Your task to perform on an android device: Open Wikipedia Image 0: 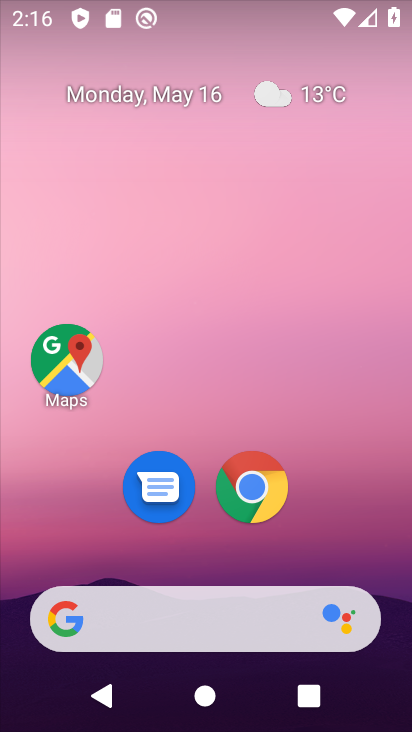
Step 0: click (272, 492)
Your task to perform on an android device: Open Wikipedia Image 1: 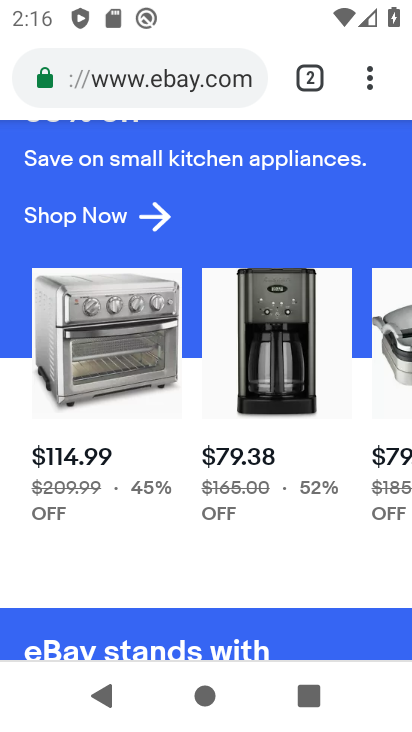
Step 1: click (320, 79)
Your task to perform on an android device: Open Wikipedia Image 2: 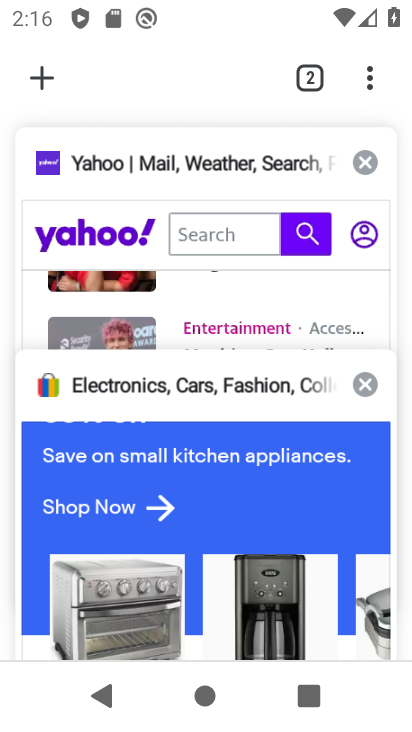
Step 2: click (47, 75)
Your task to perform on an android device: Open Wikipedia Image 3: 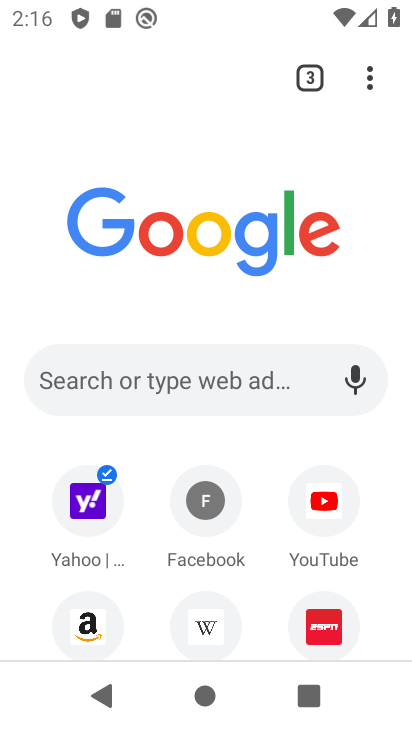
Step 3: click (206, 640)
Your task to perform on an android device: Open Wikipedia Image 4: 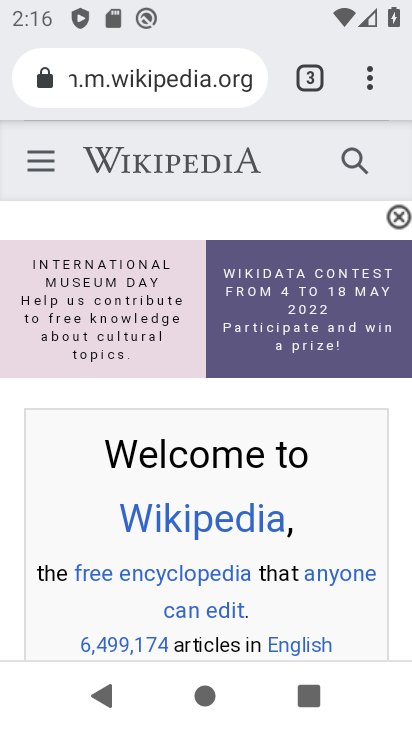
Step 4: task complete